Your task to perform on an android device: Open the phone app and click the voicemail tab. Image 0: 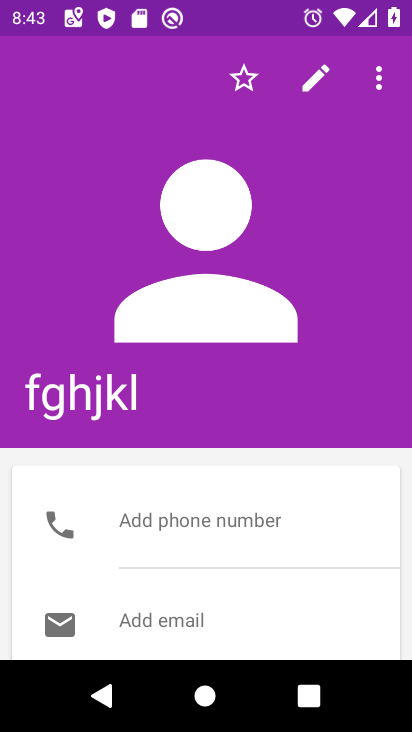
Step 0: press home button
Your task to perform on an android device: Open the phone app and click the voicemail tab. Image 1: 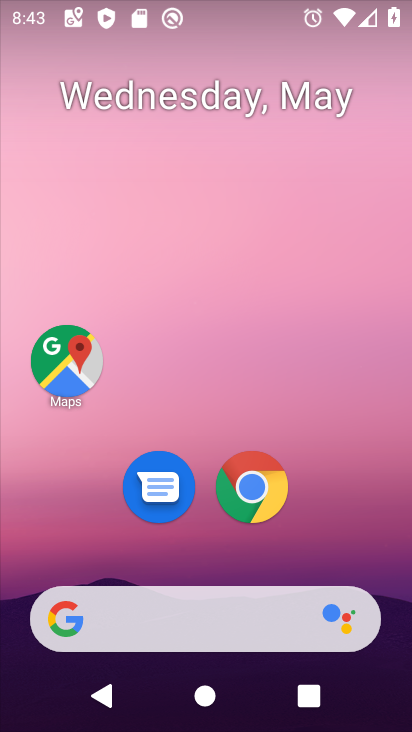
Step 1: drag from (210, 554) to (222, 8)
Your task to perform on an android device: Open the phone app and click the voicemail tab. Image 2: 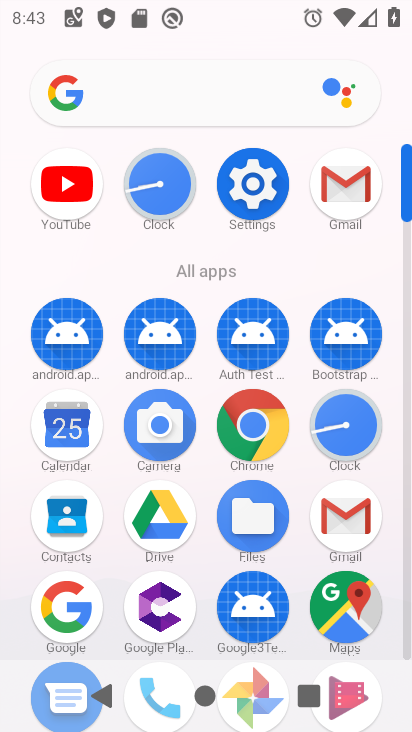
Step 2: drag from (203, 560) to (241, 66)
Your task to perform on an android device: Open the phone app and click the voicemail tab. Image 3: 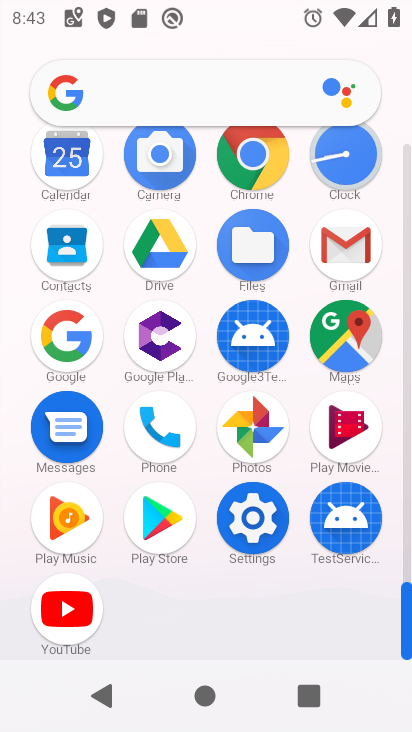
Step 3: click (157, 418)
Your task to perform on an android device: Open the phone app and click the voicemail tab. Image 4: 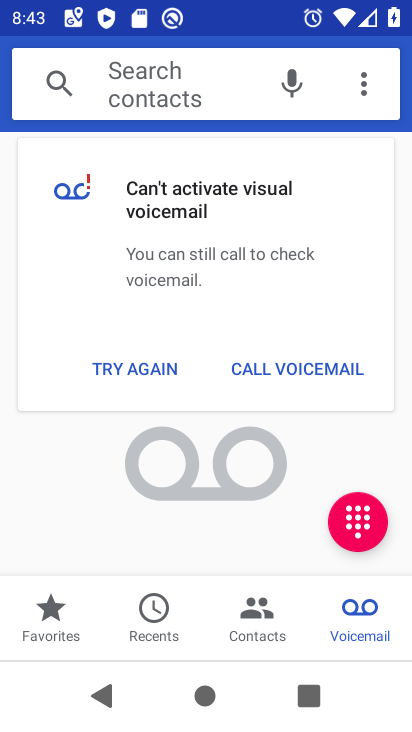
Step 4: task complete